Your task to perform on an android device: Open privacy settings Image 0: 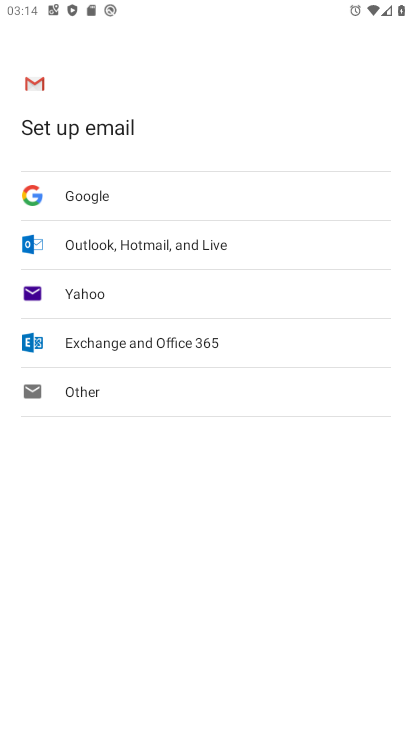
Step 0: drag from (246, 602) to (336, 167)
Your task to perform on an android device: Open privacy settings Image 1: 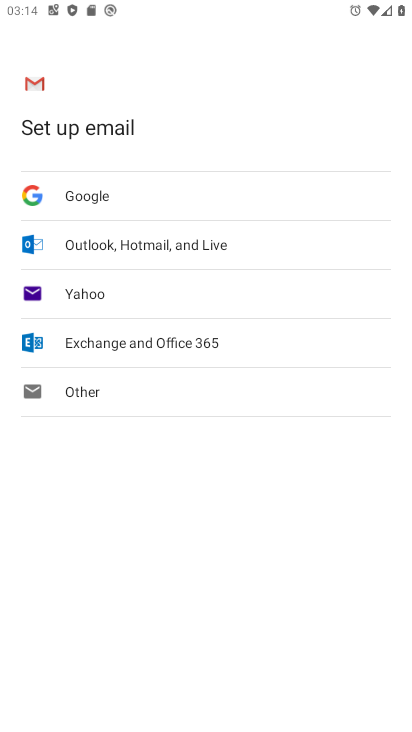
Step 1: press back button
Your task to perform on an android device: Open privacy settings Image 2: 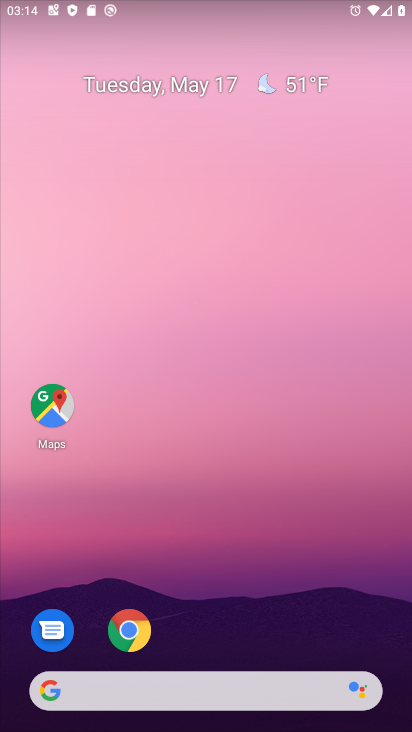
Step 2: drag from (206, 616) to (273, 64)
Your task to perform on an android device: Open privacy settings Image 3: 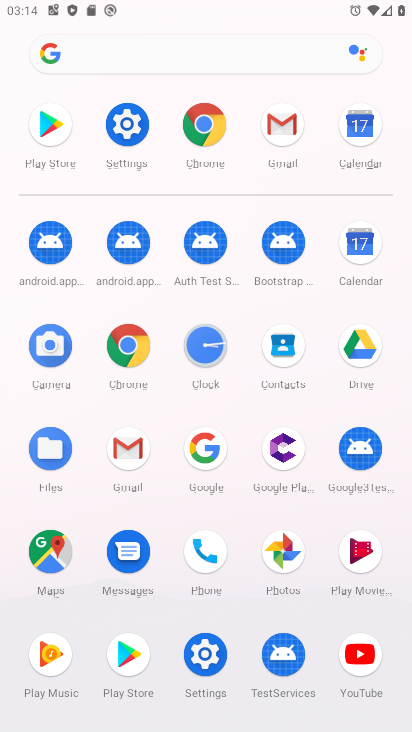
Step 3: click (132, 125)
Your task to perform on an android device: Open privacy settings Image 4: 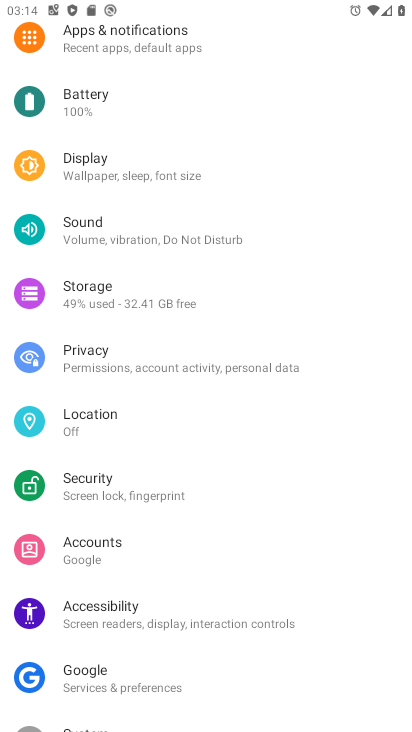
Step 4: click (105, 370)
Your task to perform on an android device: Open privacy settings Image 5: 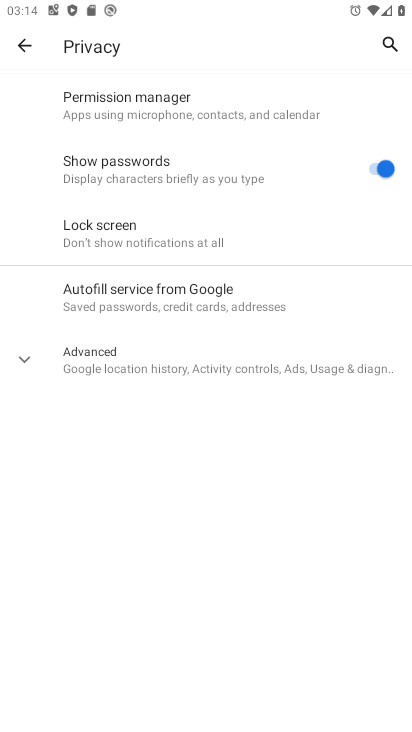
Step 5: task complete